Your task to perform on an android device: change keyboard looks Image 0: 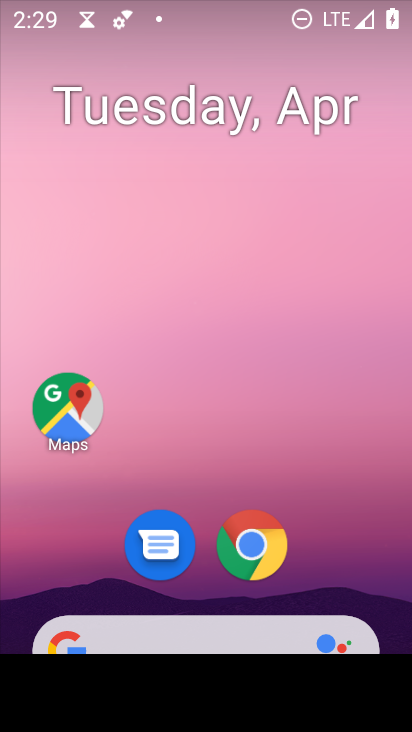
Step 0: drag from (324, 406) to (298, 199)
Your task to perform on an android device: change keyboard looks Image 1: 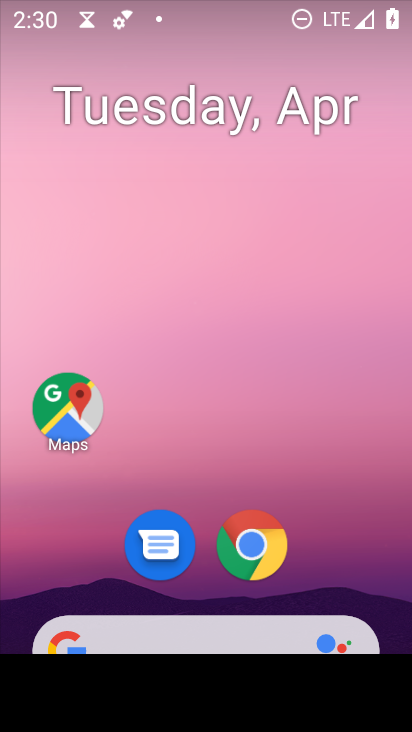
Step 1: drag from (381, 575) to (295, 15)
Your task to perform on an android device: change keyboard looks Image 2: 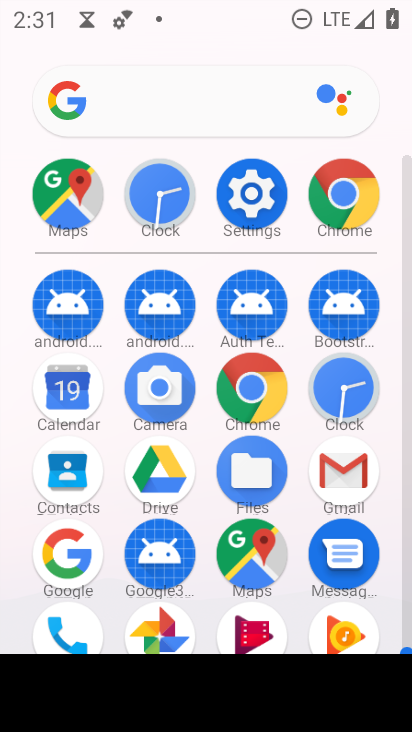
Step 2: click (237, 193)
Your task to perform on an android device: change keyboard looks Image 3: 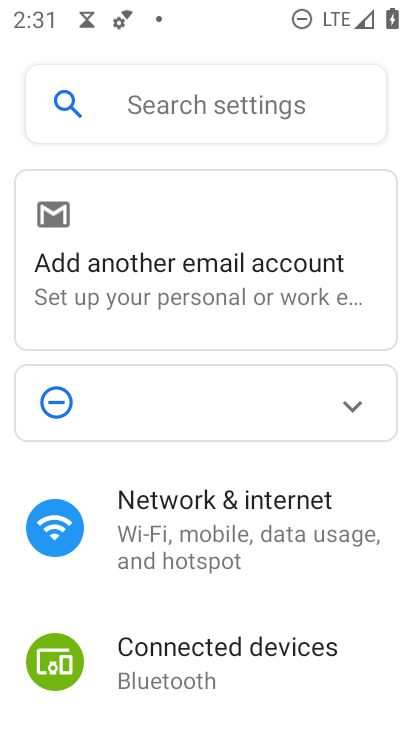
Step 3: drag from (361, 628) to (316, 113)
Your task to perform on an android device: change keyboard looks Image 4: 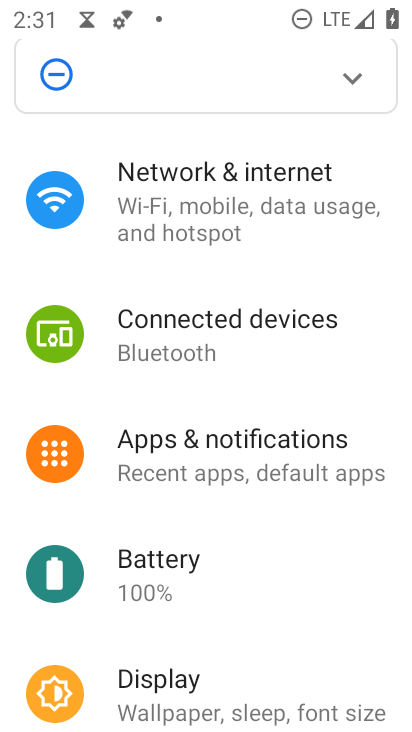
Step 4: drag from (364, 628) to (316, 207)
Your task to perform on an android device: change keyboard looks Image 5: 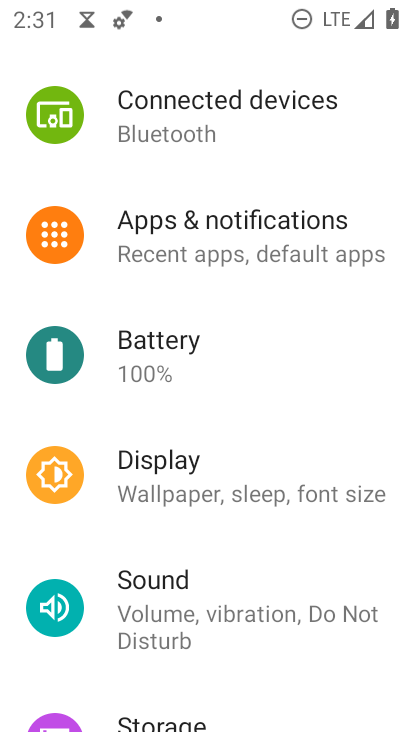
Step 5: drag from (320, 670) to (223, 289)
Your task to perform on an android device: change keyboard looks Image 6: 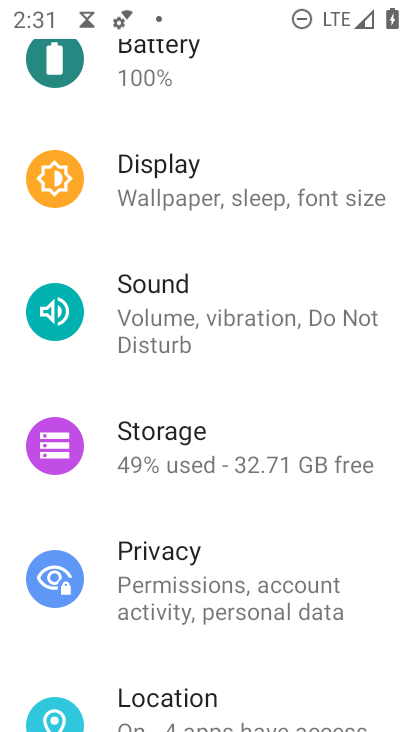
Step 6: drag from (270, 649) to (224, 184)
Your task to perform on an android device: change keyboard looks Image 7: 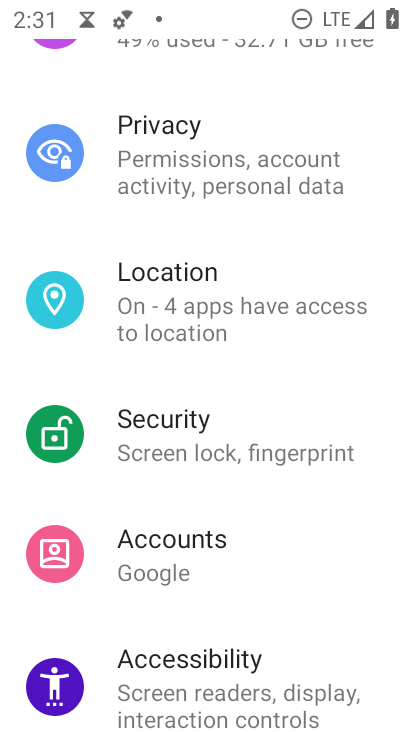
Step 7: drag from (341, 619) to (266, 192)
Your task to perform on an android device: change keyboard looks Image 8: 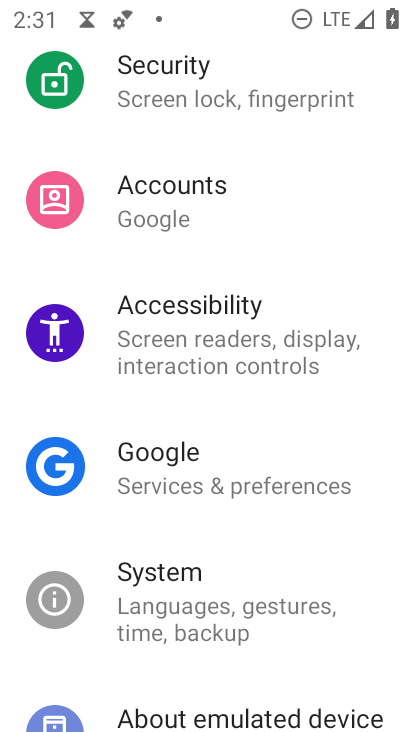
Step 8: click (296, 627)
Your task to perform on an android device: change keyboard looks Image 9: 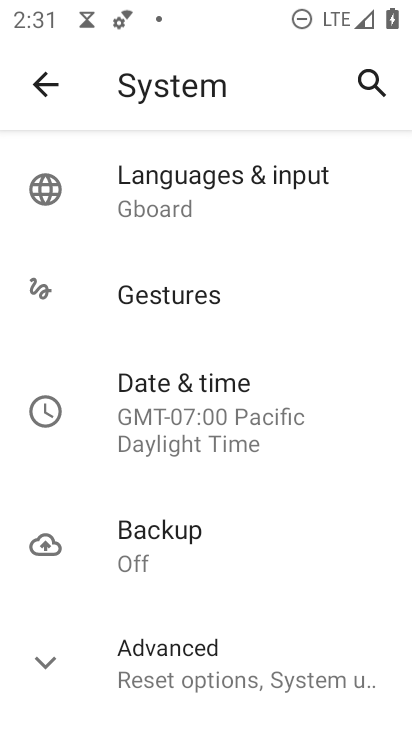
Step 9: click (322, 193)
Your task to perform on an android device: change keyboard looks Image 10: 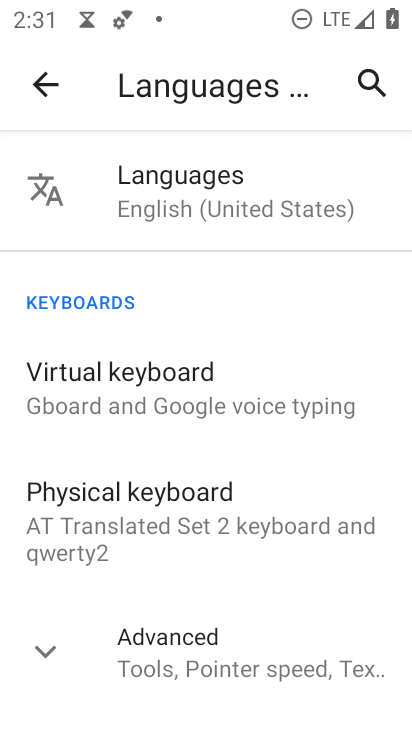
Step 10: click (261, 383)
Your task to perform on an android device: change keyboard looks Image 11: 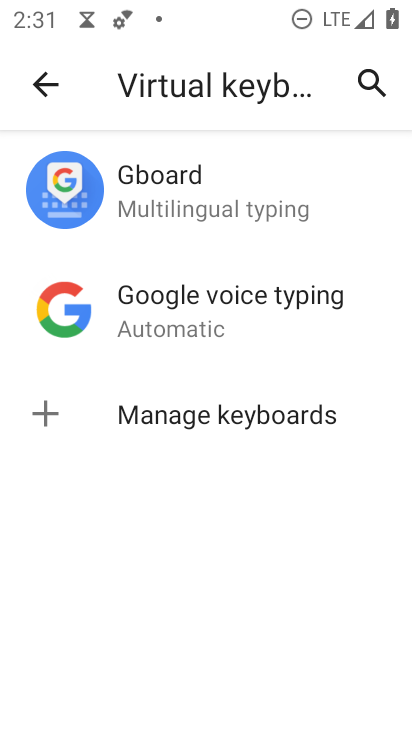
Step 11: click (271, 195)
Your task to perform on an android device: change keyboard looks Image 12: 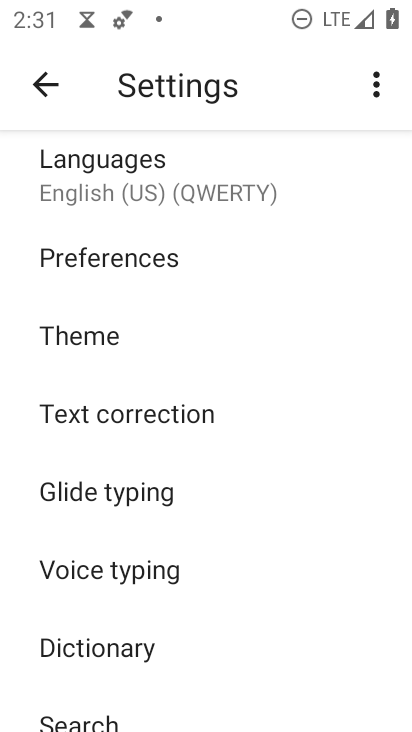
Step 12: click (226, 339)
Your task to perform on an android device: change keyboard looks Image 13: 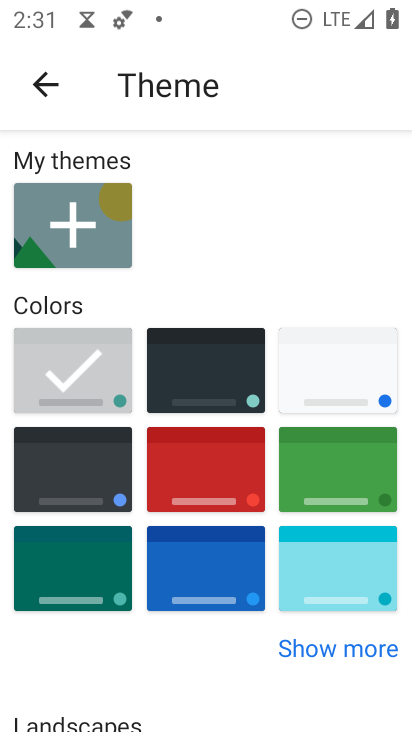
Step 13: click (226, 339)
Your task to perform on an android device: change keyboard looks Image 14: 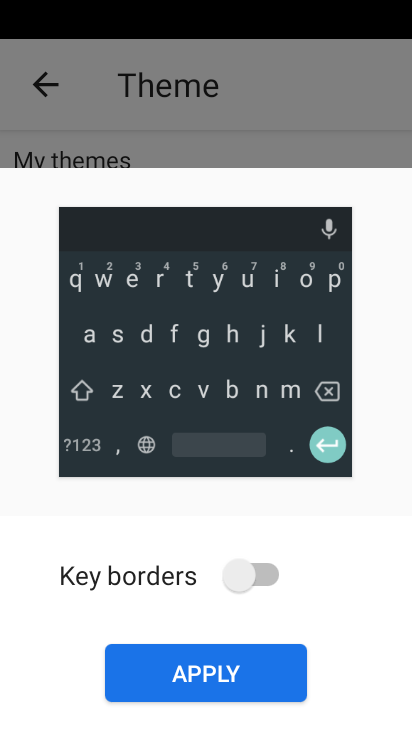
Step 14: click (251, 664)
Your task to perform on an android device: change keyboard looks Image 15: 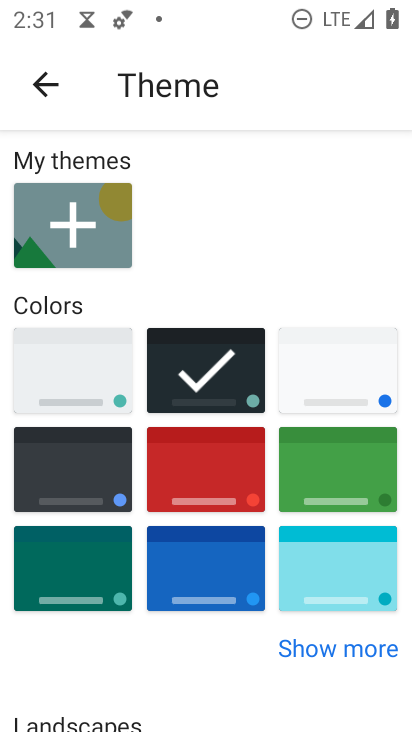
Step 15: task complete